Your task to perform on an android device: stop showing notifications on the lock screen Image 0: 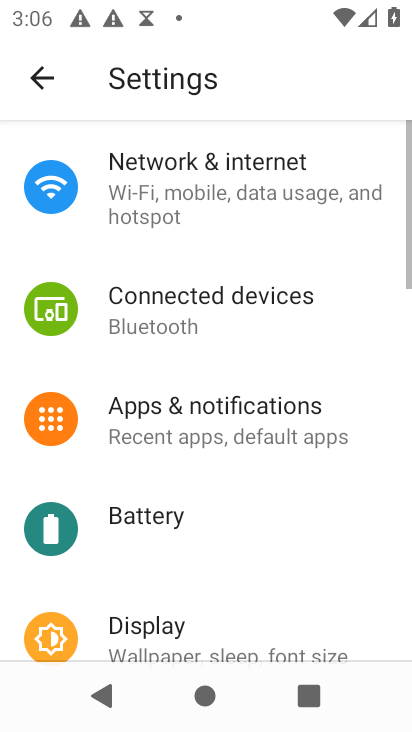
Step 0: drag from (236, 582) to (229, 204)
Your task to perform on an android device: stop showing notifications on the lock screen Image 1: 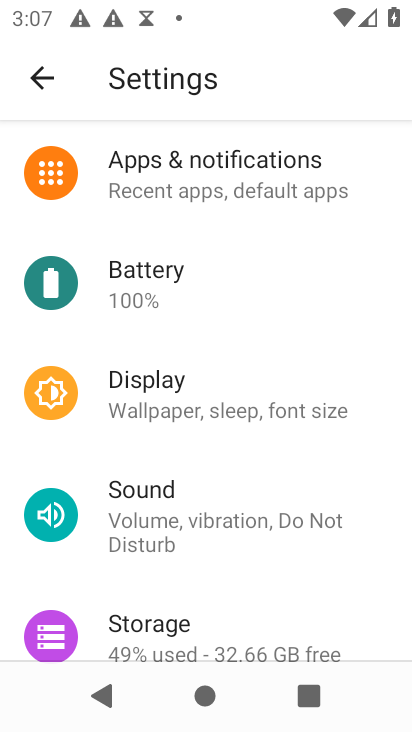
Step 1: click (220, 179)
Your task to perform on an android device: stop showing notifications on the lock screen Image 2: 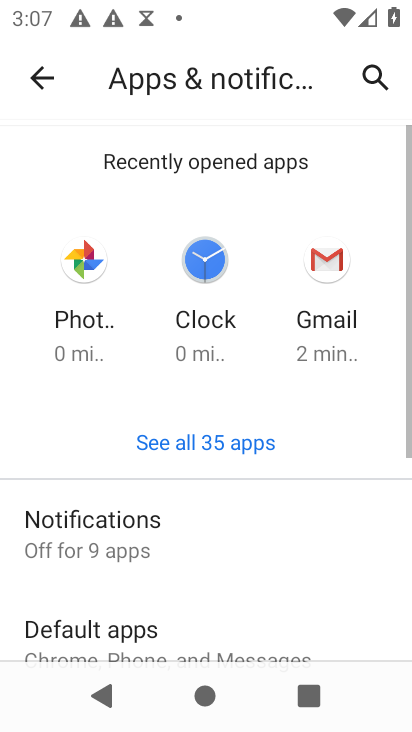
Step 2: drag from (205, 576) to (260, 194)
Your task to perform on an android device: stop showing notifications on the lock screen Image 3: 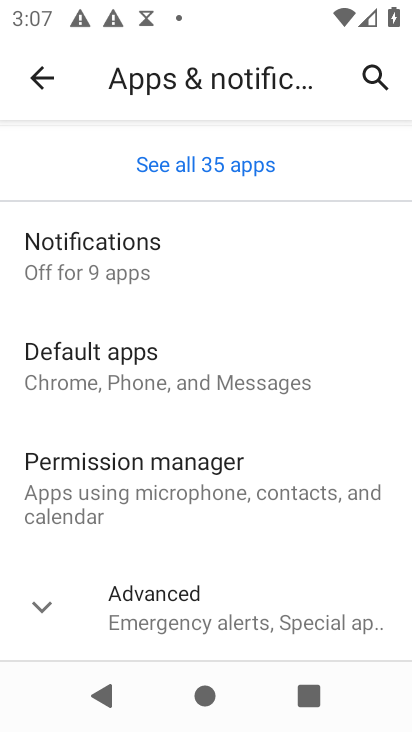
Step 3: click (165, 262)
Your task to perform on an android device: stop showing notifications on the lock screen Image 4: 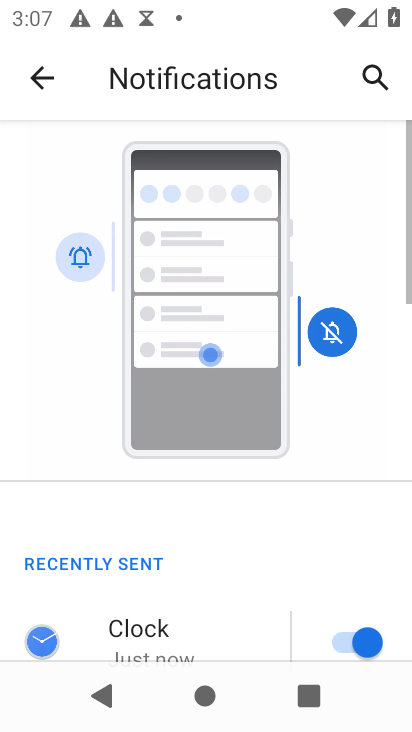
Step 4: drag from (238, 605) to (303, 161)
Your task to perform on an android device: stop showing notifications on the lock screen Image 5: 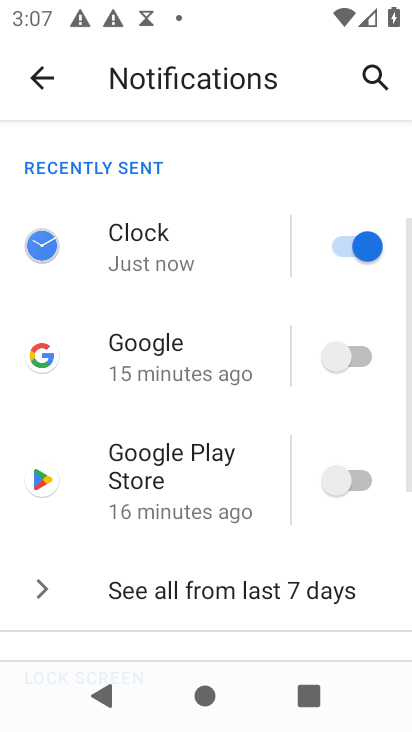
Step 5: drag from (214, 608) to (246, 243)
Your task to perform on an android device: stop showing notifications on the lock screen Image 6: 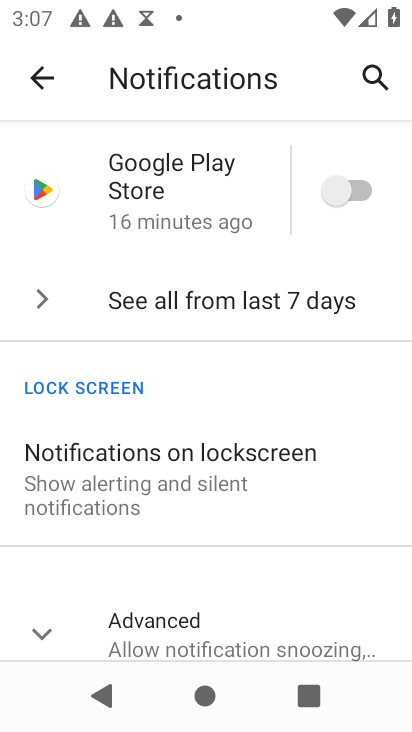
Step 6: click (166, 479)
Your task to perform on an android device: stop showing notifications on the lock screen Image 7: 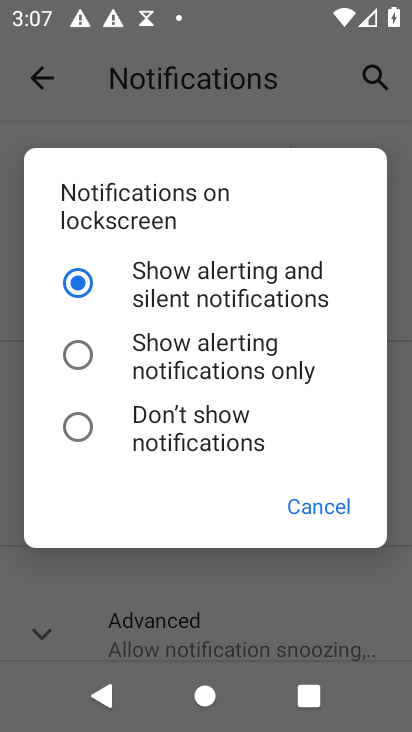
Step 7: click (124, 418)
Your task to perform on an android device: stop showing notifications on the lock screen Image 8: 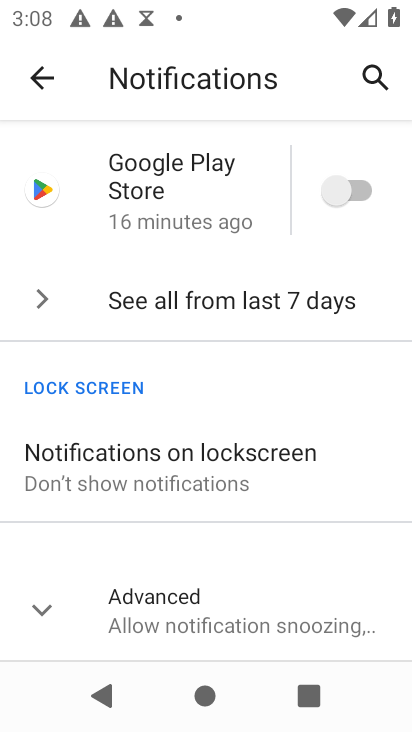
Step 8: task complete